Your task to perform on an android device: What's the weather today? Image 0: 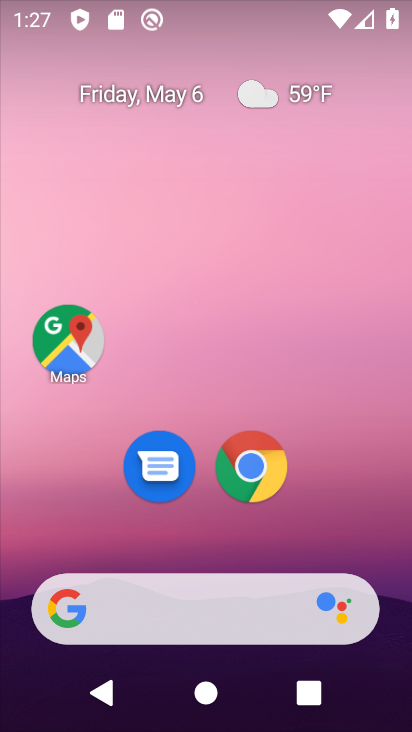
Step 0: click (263, 98)
Your task to perform on an android device: What's the weather today? Image 1: 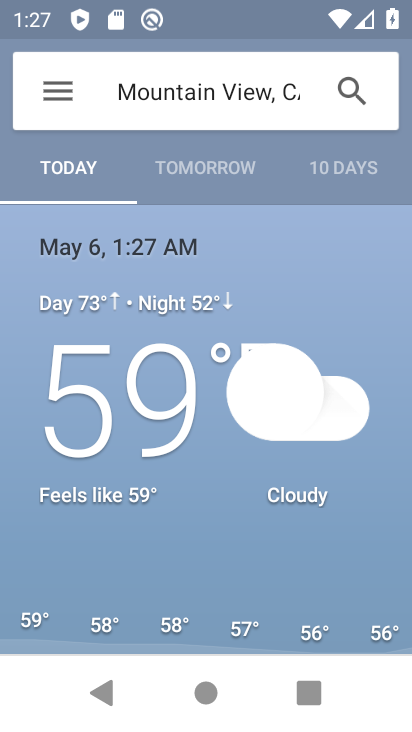
Step 1: task complete